Your task to perform on an android device: turn on the 24-hour format for clock Image 0: 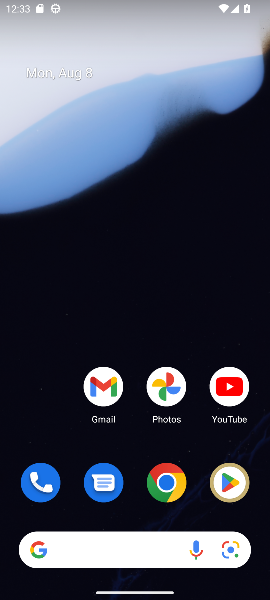
Step 0: drag from (94, 550) to (117, 158)
Your task to perform on an android device: turn on the 24-hour format for clock Image 1: 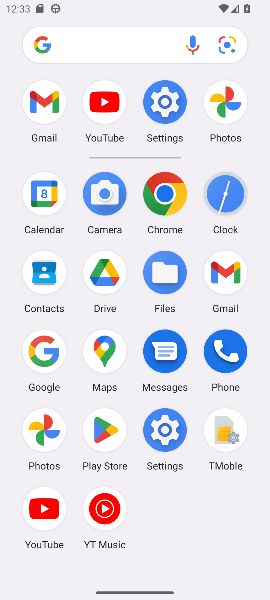
Step 1: click (235, 181)
Your task to perform on an android device: turn on the 24-hour format for clock Image 2: 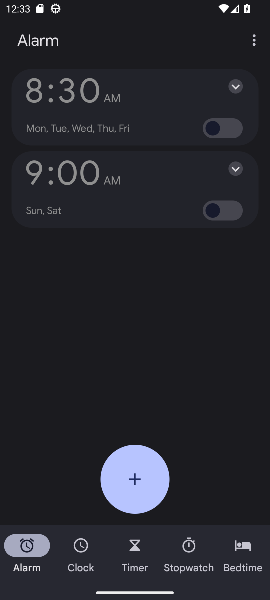
Step 2: click (89, 552)
Your task to perform on an android device: turn on the 24-hour format for clock Image 3: 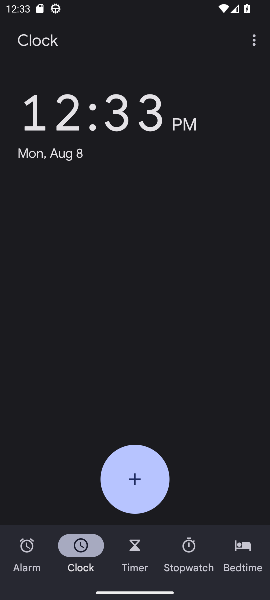
Step 3: click (252, 32)
Your task to perform on an android device: turn on the 24-hour format for clock Image 4: 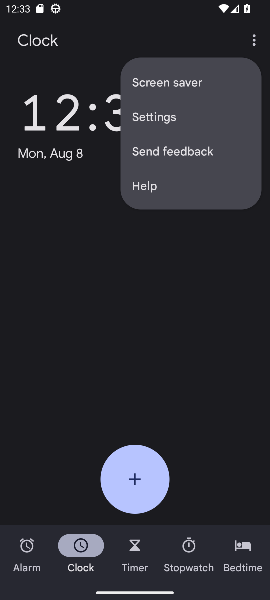
Step 4: click (173, 126)
Your task to perform on an android device: turn on the 24-hour format for clock Image 5: 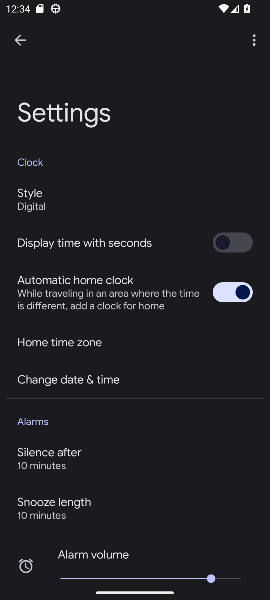
Step 5: click (104, 376)
Your task to perform on an android device: turn on the 24-hour format for clock Image 6: 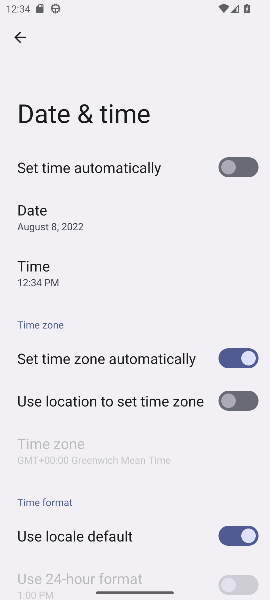
Step 6: click (236, 530)
Your task to perform on an android device: turn on the 24-hour format for clock Image 7: 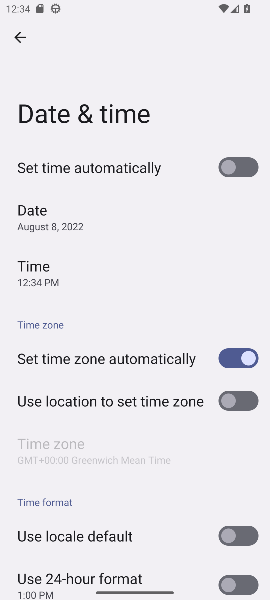
Step 7: click (238, 580)
Your task to perform on an android device: turn on the 24-hour format for clock Image 8: 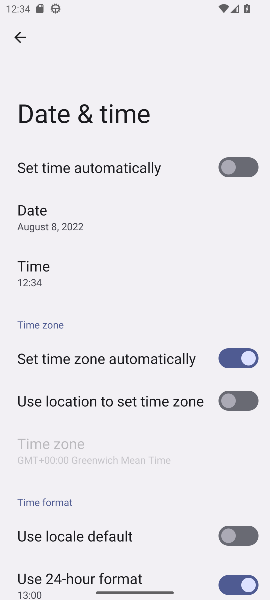
Step 8: task complete